Your task to perform on an android device: Open Yahoo.com Image 0: 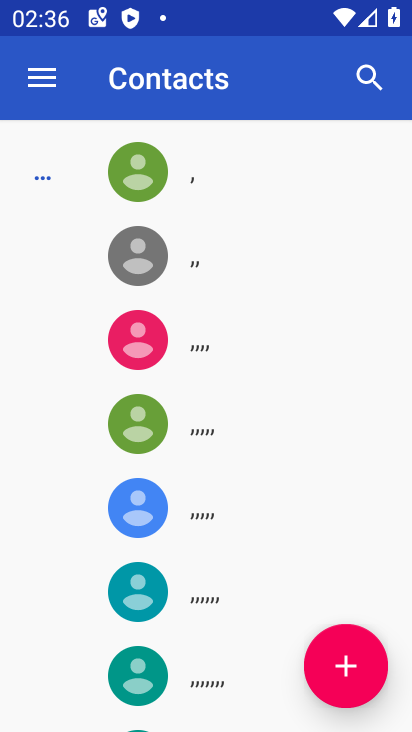
Step 0: press home button
Your task to perform on an android device: Open Yahoo.com Image 1: 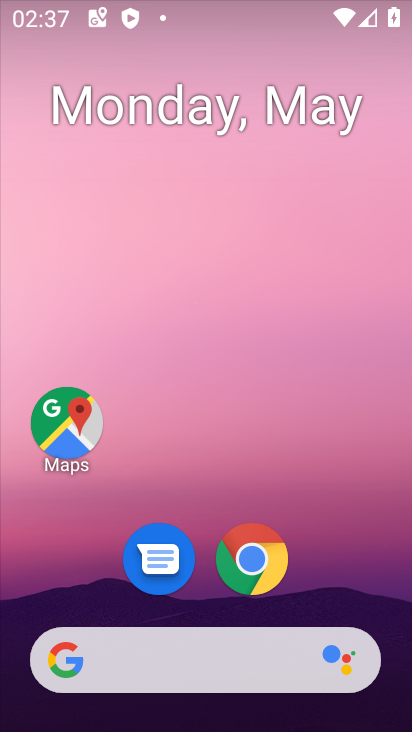
Step 1: click (134, 672)
Your task to perform on an android device: Open Yahoo.com Image 2: 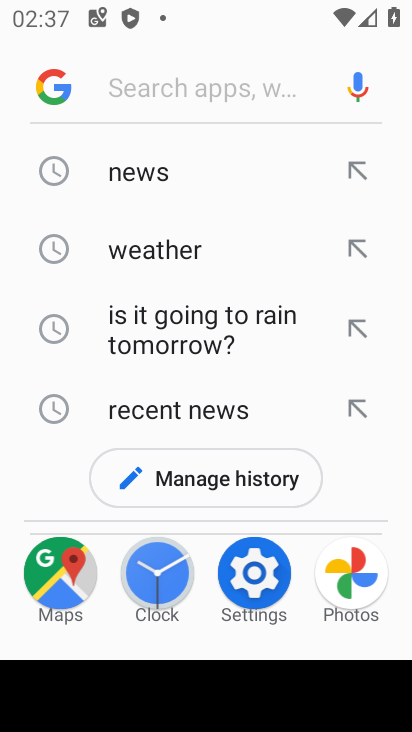
Step 2: type "yahoo.com"
Your task to perform on an android device: Open Yahoo.com Image 3: 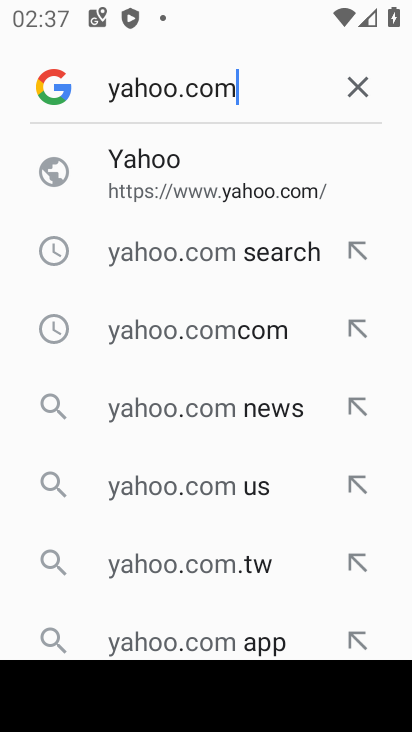
Step 3: click (203, 166)
Your task to perform on an android device: Open Yahoo.com Image 4: 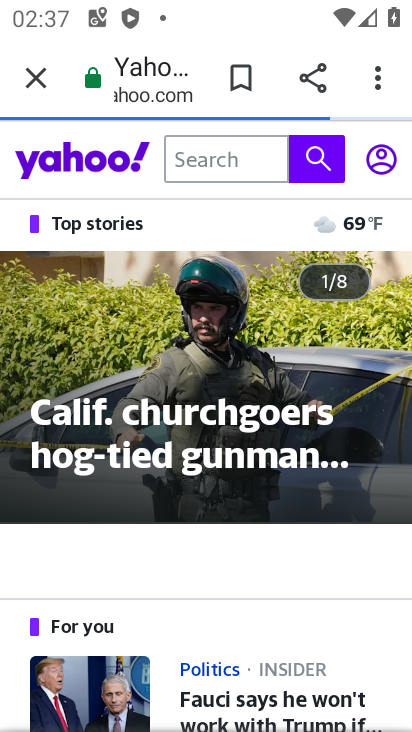
Step 4: task complete